Your task to perform on an android device: set the timer Image 0: 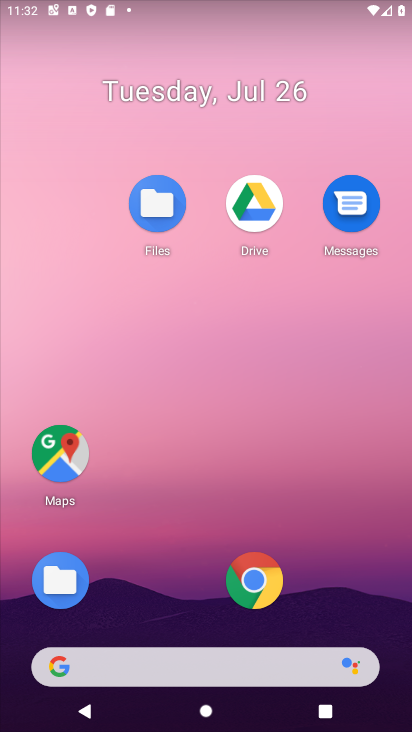
Step 0: click (176, 97)
Your task to perform on an android device: set the timer Image 1: 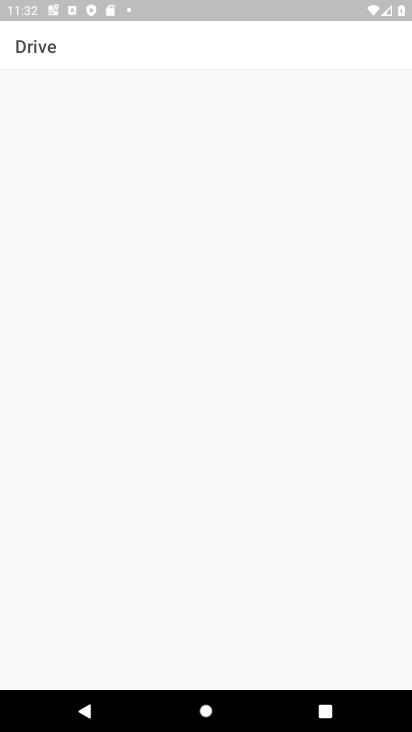
Step 1: drag from (188, 600) to (174, 45)
Your task to perform on an android device: set the timer Image 2: 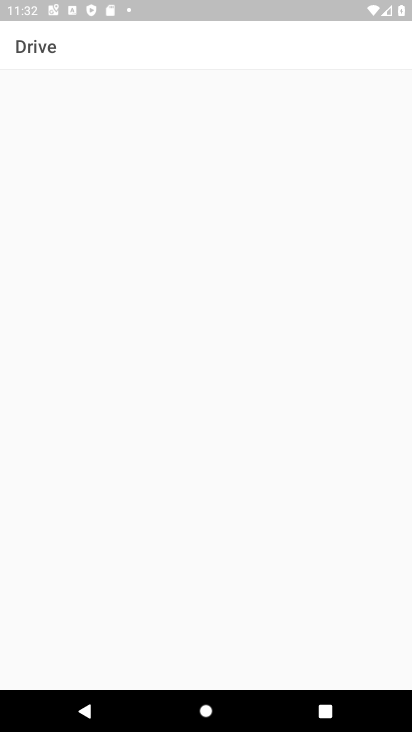
Step 2: click (174, 45)
Your task to perform on an android device: set the timer Image 3: 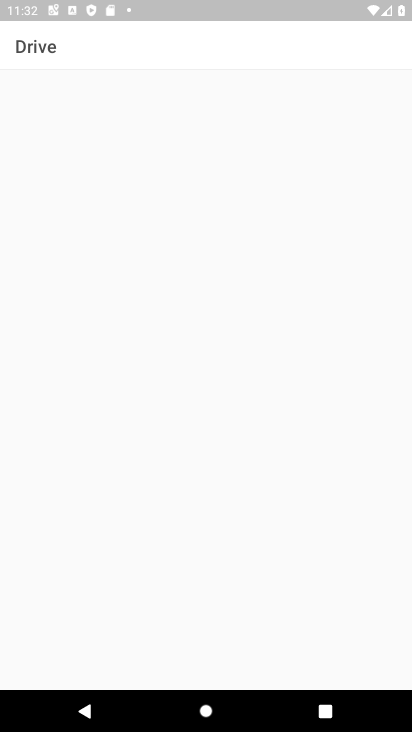
Step 3: press home button
Your task to perform on an android device: set the timer Image 4: 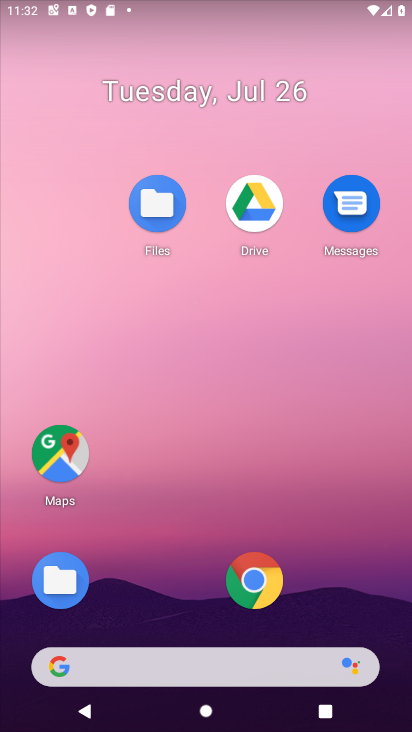
Step 4: drag from (201, 598) to (171, 127)
Your task to perform on an android device: set the timer Image 5: 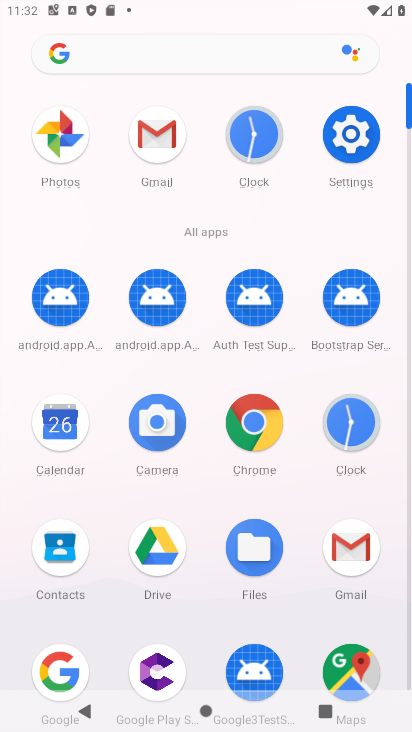
Step 5: click (233, 148)
Your task to perform on an android device: set the timer Image 6: 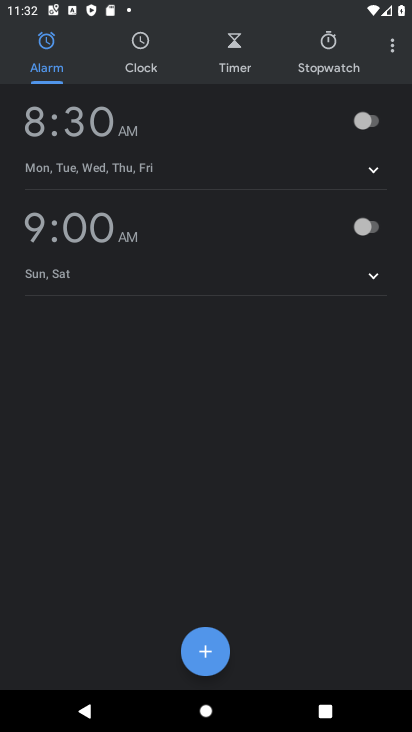
Step 6: click (252, 26)
Your task to perform on an android device: set the timer Image 7: 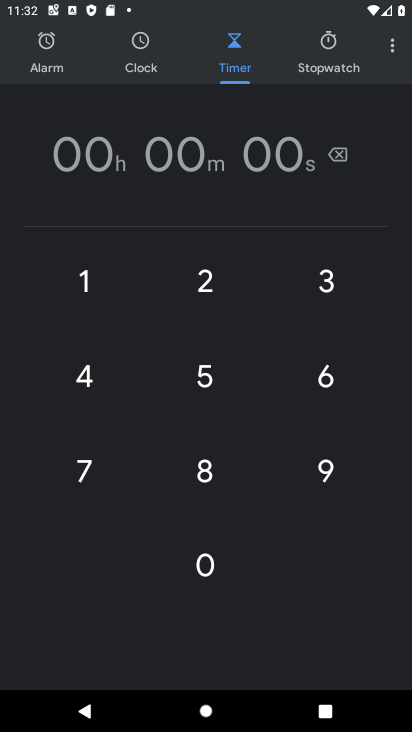
Step 7: task complete